Your task to perform on an android device: stop showing notifications on the lock screen Image 0: 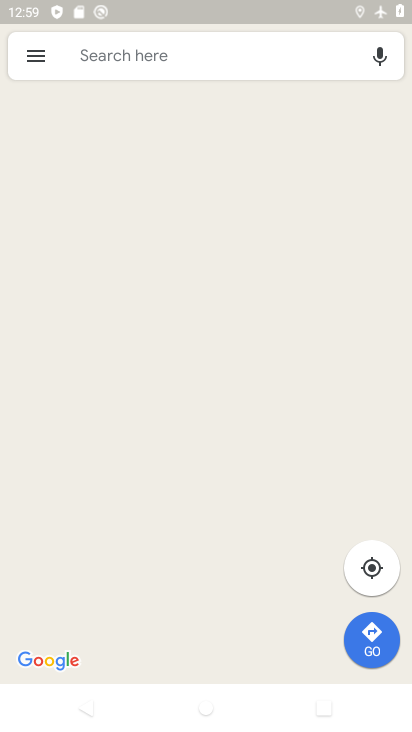
Step 0: press home button
Your task to perform on an android device: stop showing notifications on the lock screen Image 1: 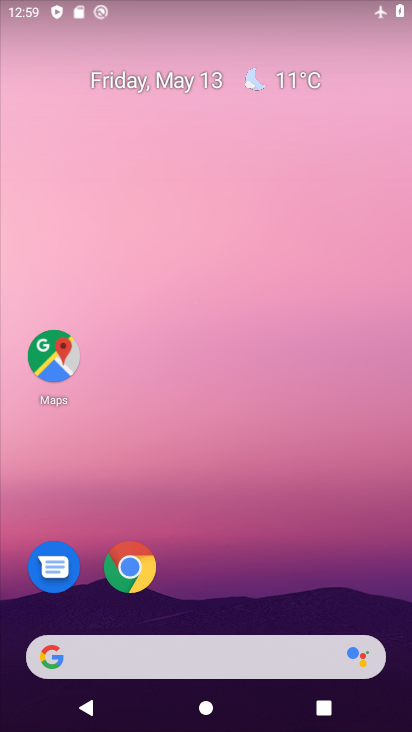
Step 1: drag from (208, 616) to (202, 32)
Your task to perform on an android device: stop showing notifications on the lock screen Image 2: 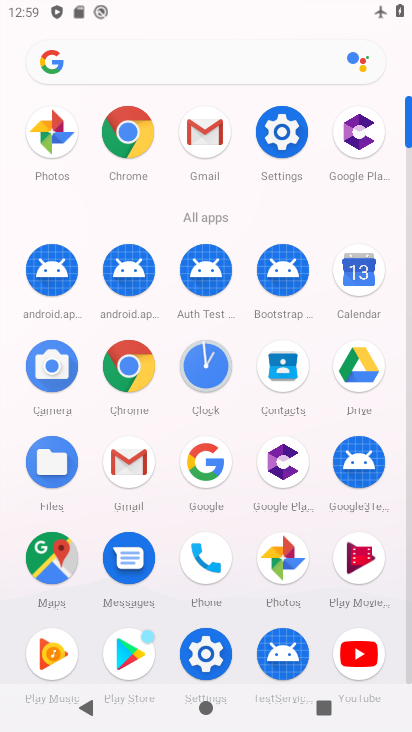
Step 2: click (278, 129)
Your task to perform on an android device: stop showing notifications on the lock screen Image 3: 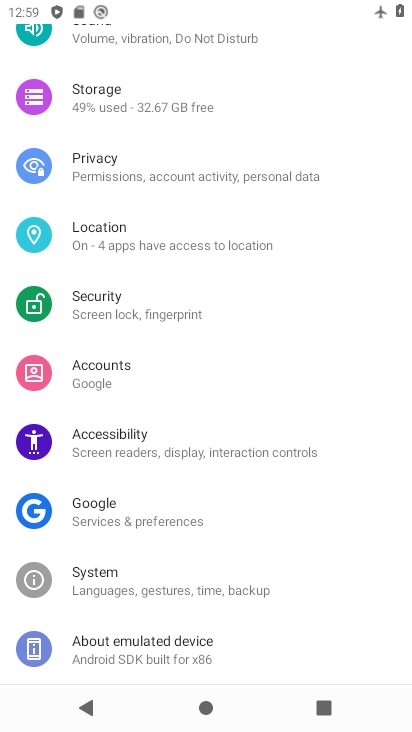
Step 3: drag from (135, 77) to (141, 583)
Your task to perform on an android device: stop showing notifications on the lock screen Image 4: 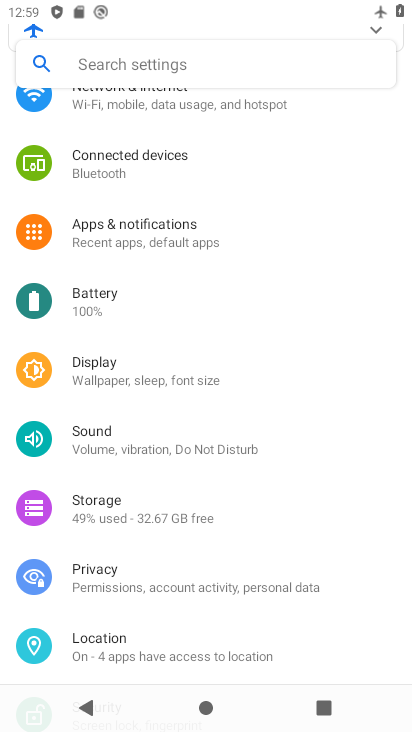
Step 4: click (206, 228)
Your task to perform on an android device: stop showing notifications on the lock screen Image 5: 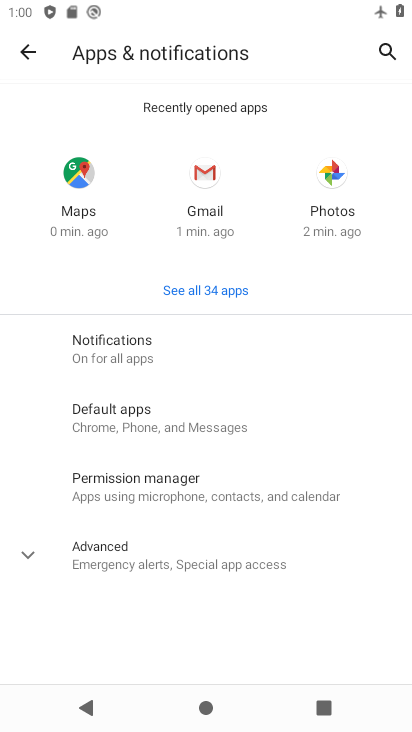
Step 5: click (162, 347)
Your task to perform on an android device: stop showing notifications on the lock screen Image 6: 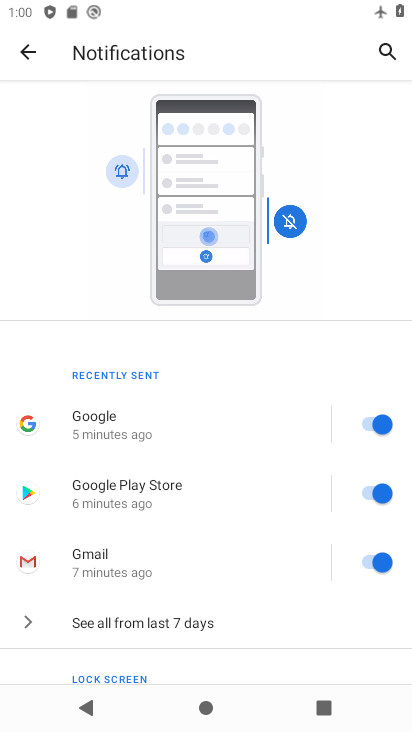
Step 6: drag from (199, 649) to (190, 183)
Your task to perform on an android device: stop showing notifications on the lock screen Image 7: 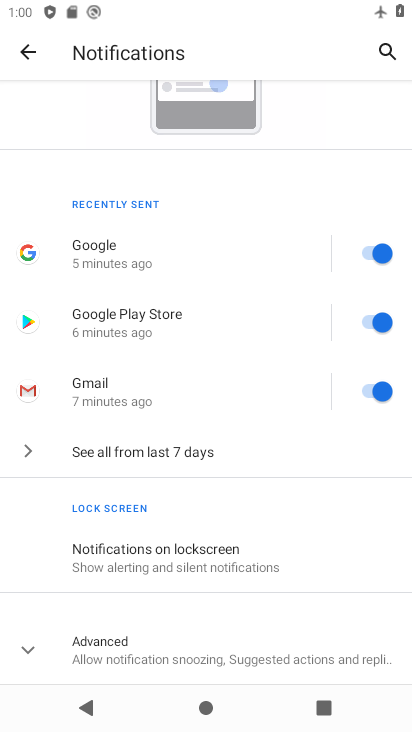
Step 7: click (245, 550)
Your task to perform on an android device: stop showing notifications on the lock screen Image 8: 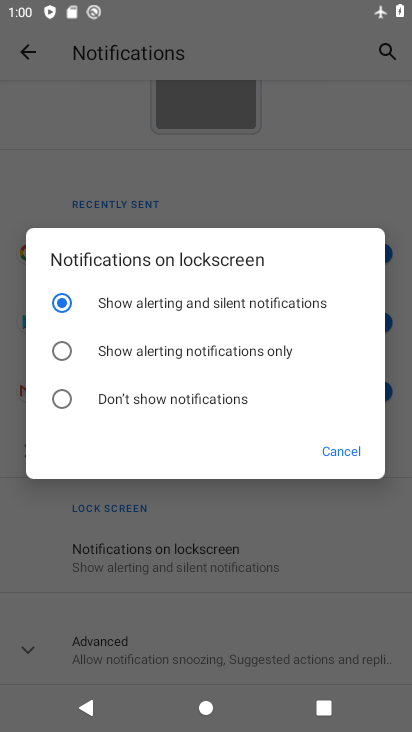
Step 8: click (58, 397)
Your task to perform on an android device: stop showing notifications on the lock screen Image 9: 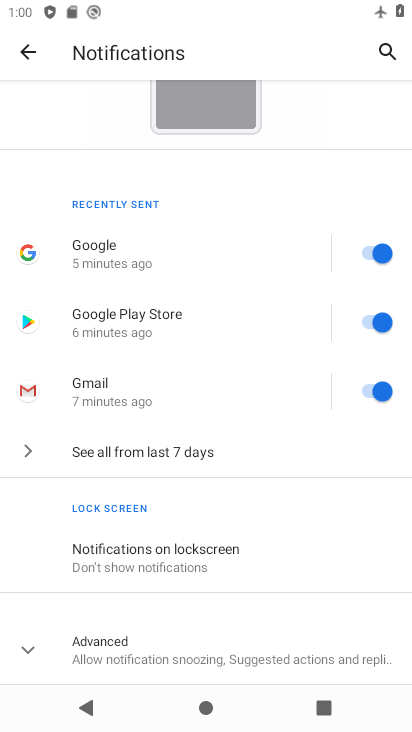
Step 9: task complete